Your task to perform on an android device: change alarm snooze length Image 0: 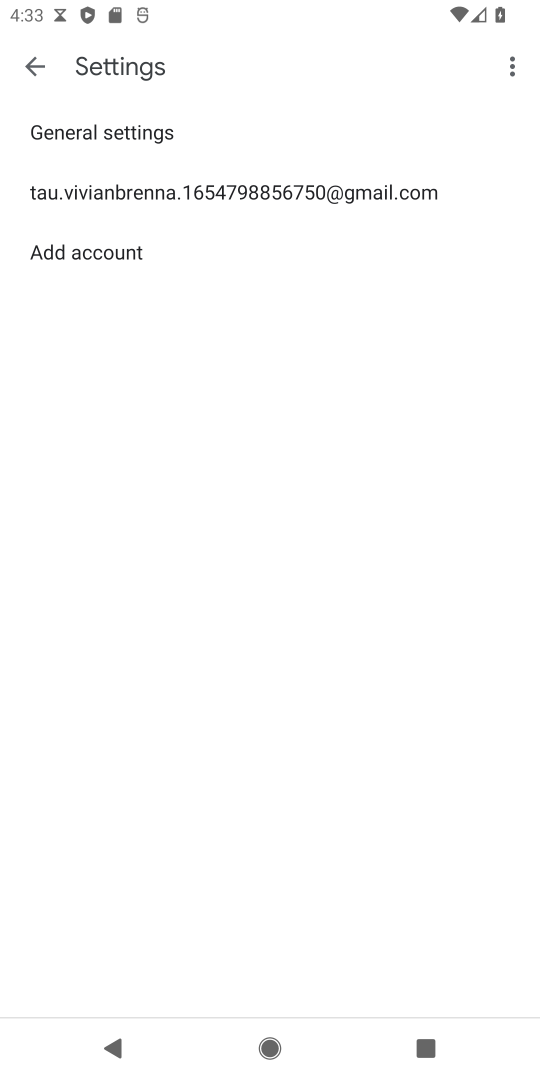
Step 0: press back button
Your task to perform on an android device: change alarm snooze length Image 1: 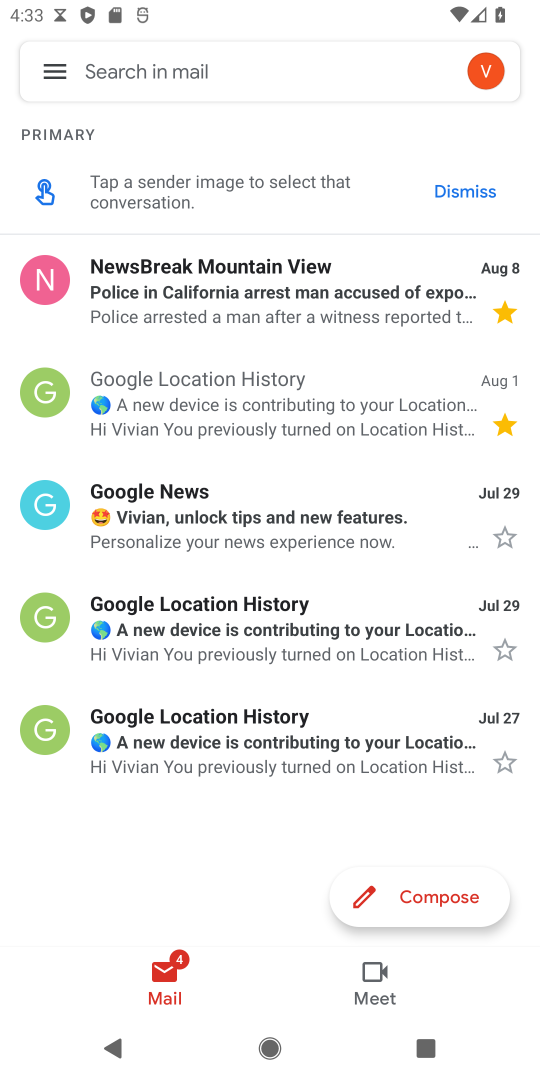
Step 1: press home button
Your task to perform on an android device: change alarm snooze length Image 2: 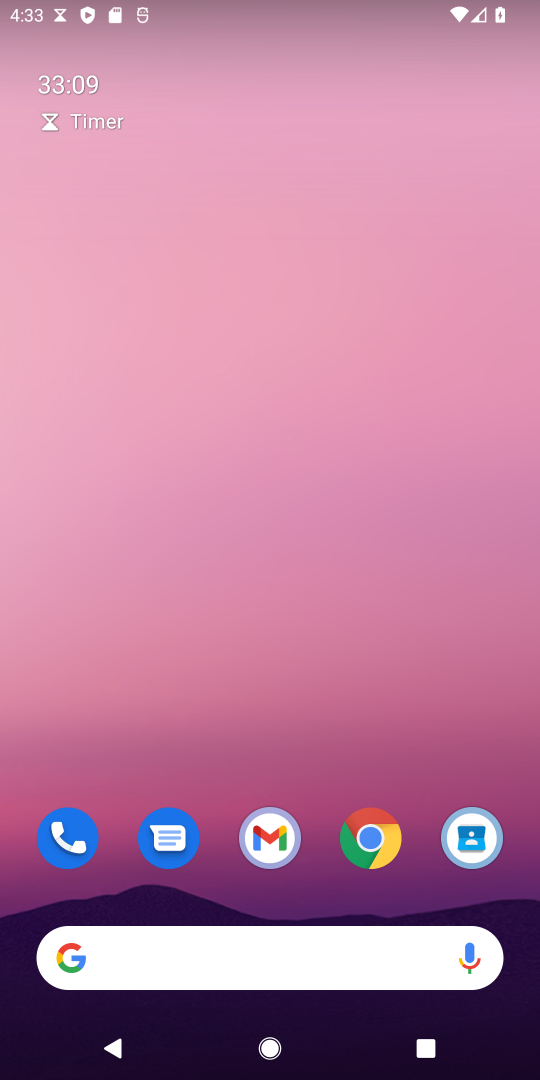
Step 2: drag from (310, 775) to (192, 36)
Your task to perform on an android device: change alarm snooze length Image 3: 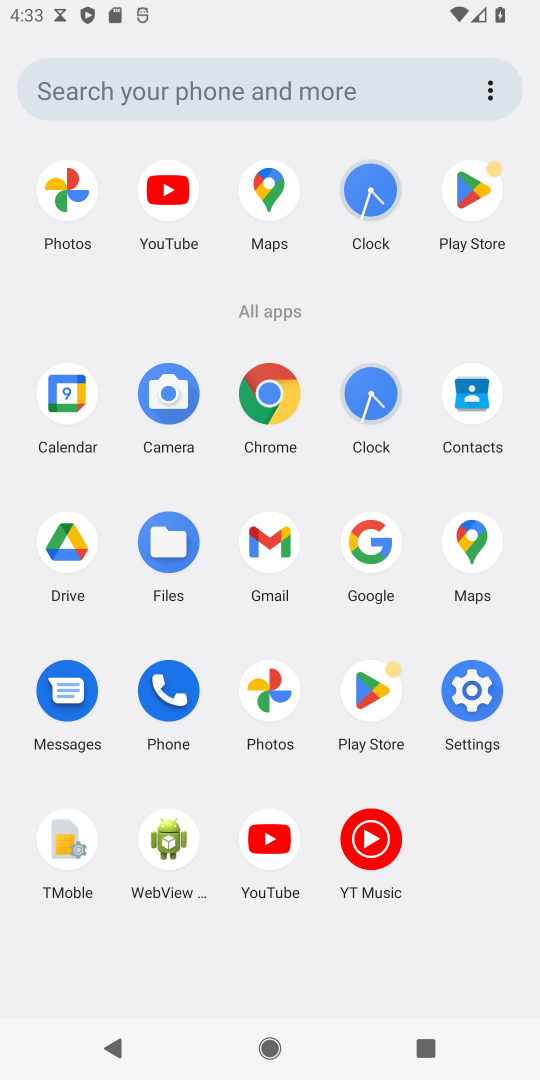
Step 3: click (377, 181)
Your task to perform on an android device: change alarm snooze length Image 4: 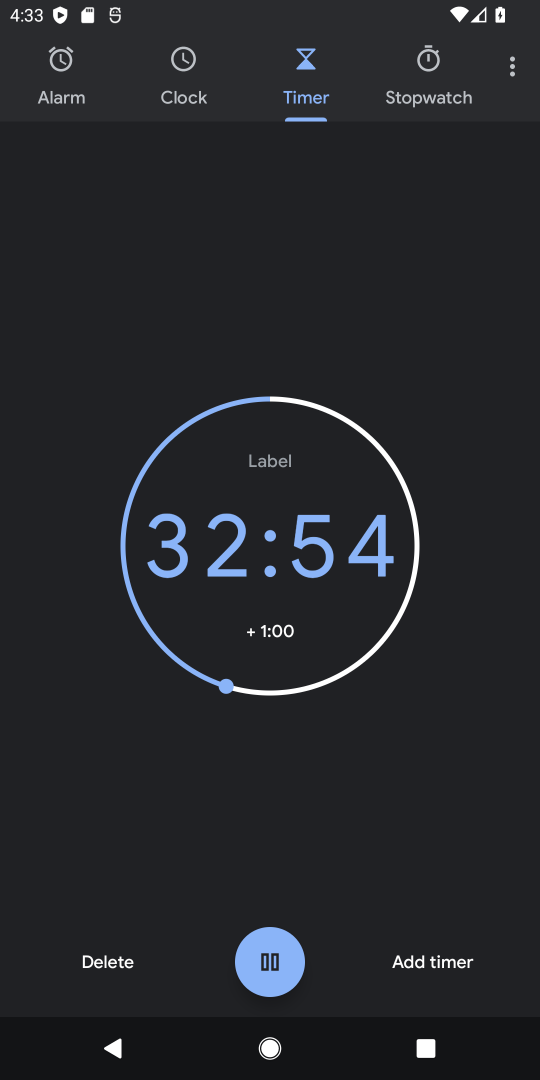
Step 4: click (515, 72)
Your task to perform on an android device: change alarm snooze length Image 5: 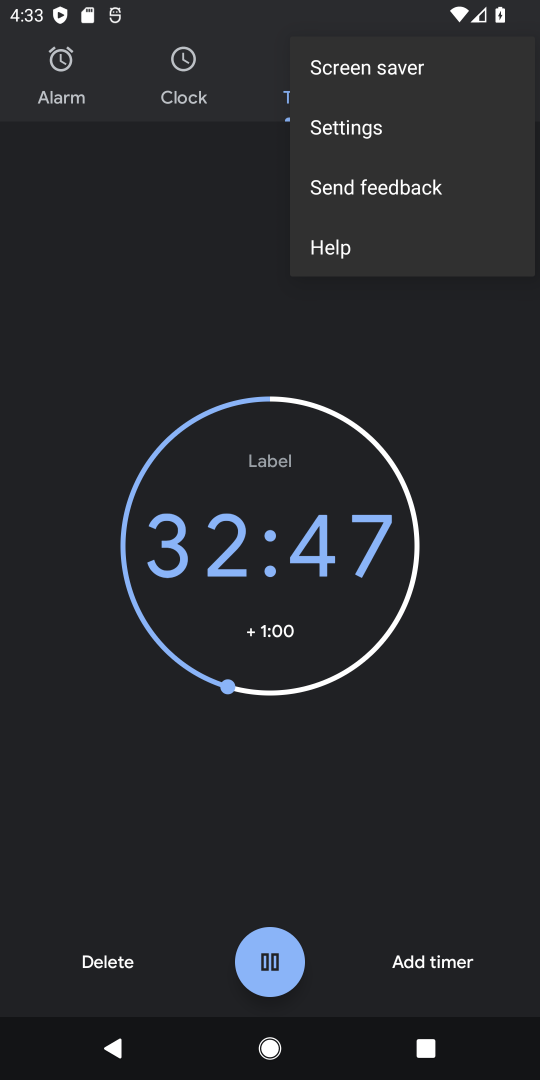
Step 5: click (406, 132)
Your task to perform on an android device: change alarm snooze length Image 6: 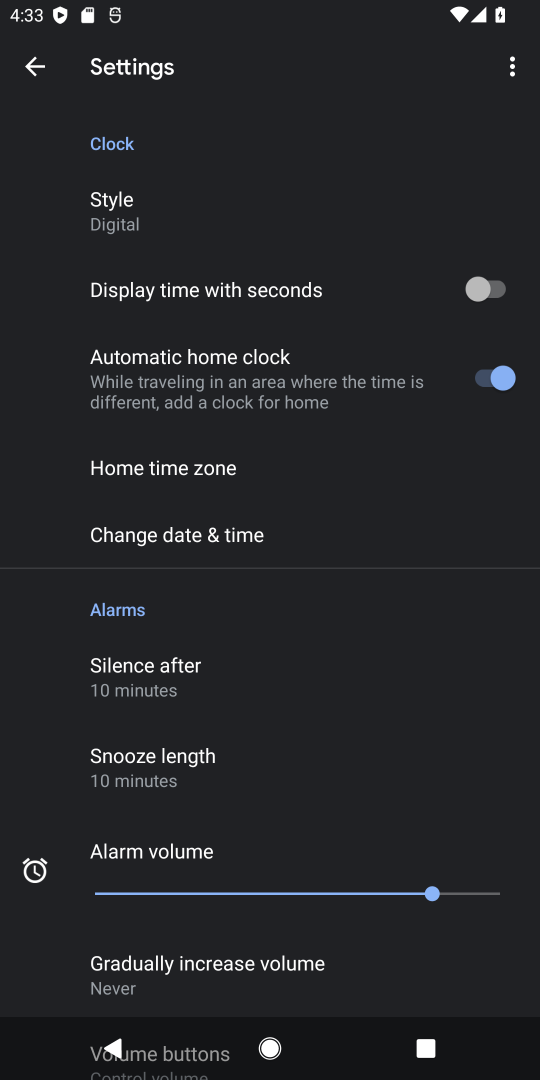
Step 6: click (239, 742)
Your task to perform on an android device: change alarm snooze length Image 7: 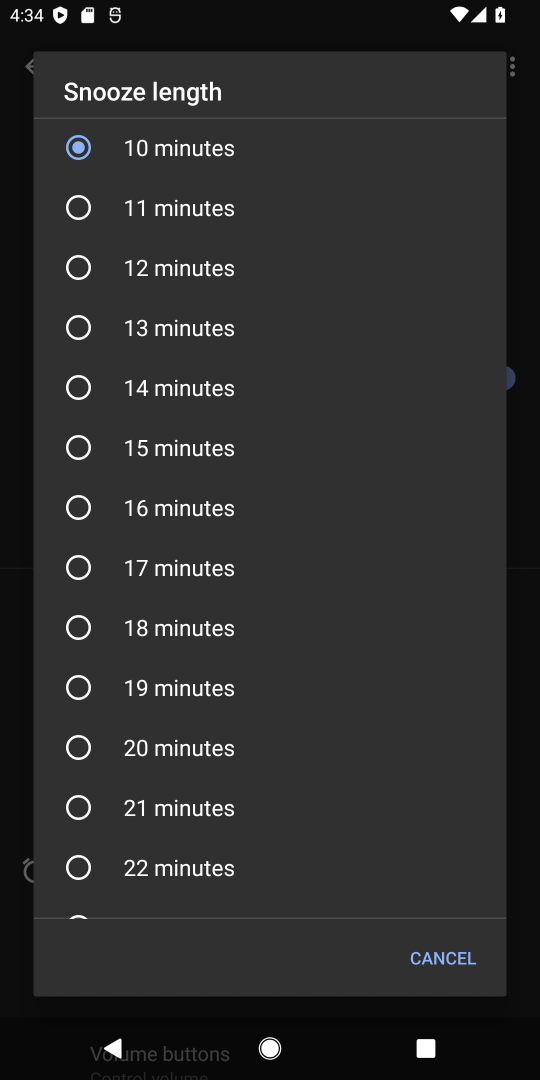
Step 7: click (214, 766)
Your task to perform on an android device: change alarm snooze length Image 8: 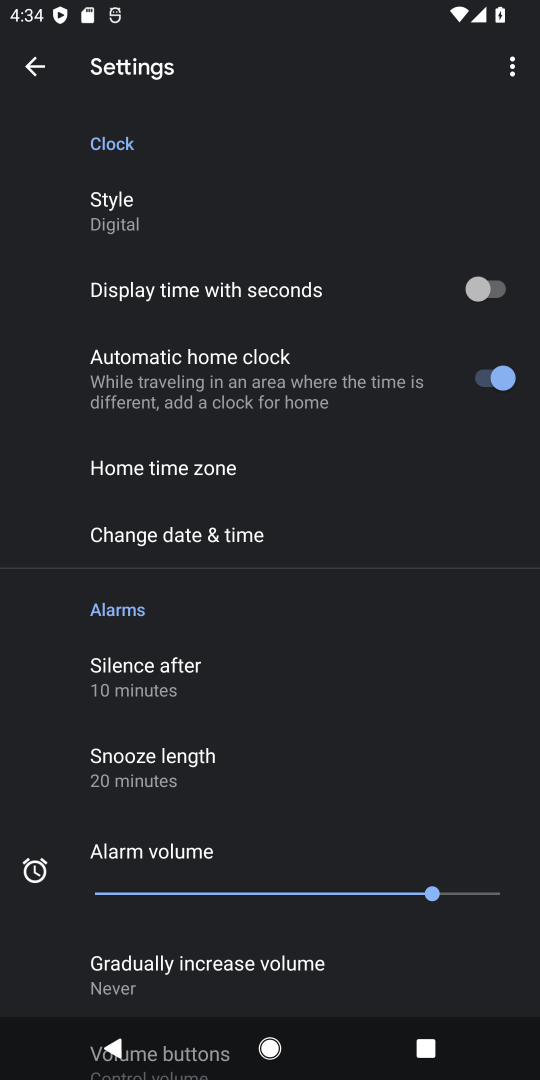
Step 8: task complete